Your task to perform on an android device: Open maps Image 0: 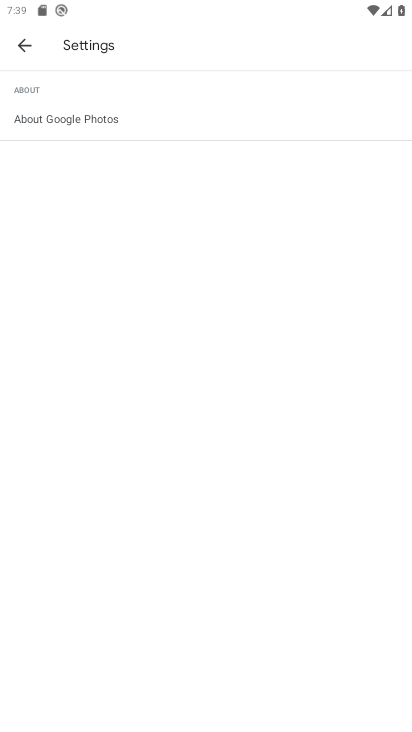
Step 0: press home button
Your task to perform on an android device: Open maps Image 1: 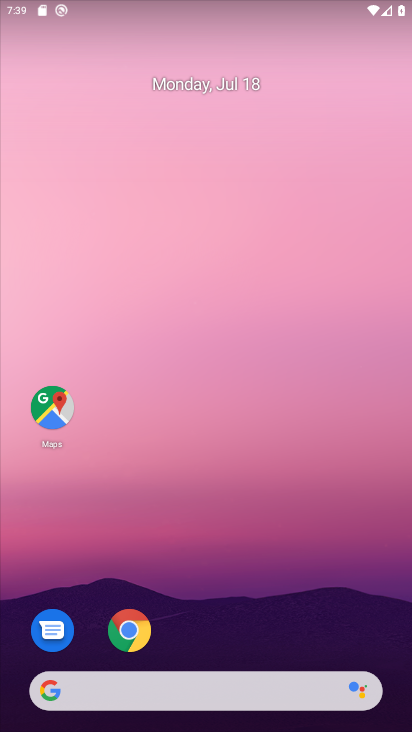
Step 1: click (57, 426)
Your task to perform on an android device: Open maps Image 2: 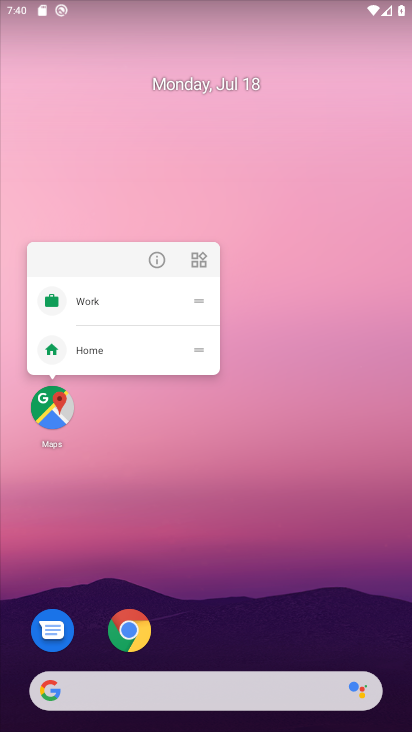
Step 2: click (46, 400)
Your task to perform on an android device: Open maps Image 3: 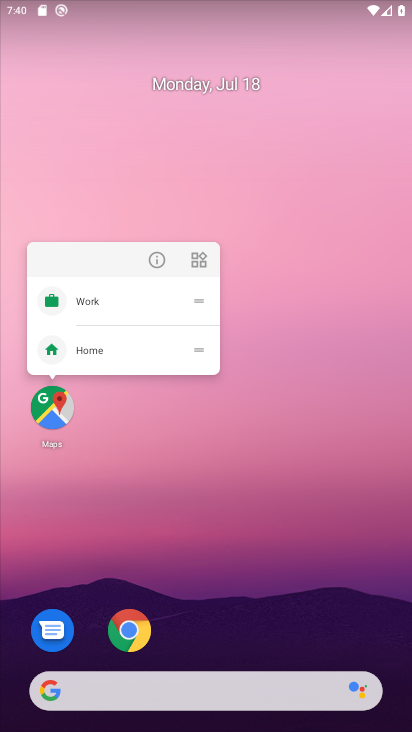
Step 3: click (46, 400)
Your task to perform on an android device: Open maps Image 4: 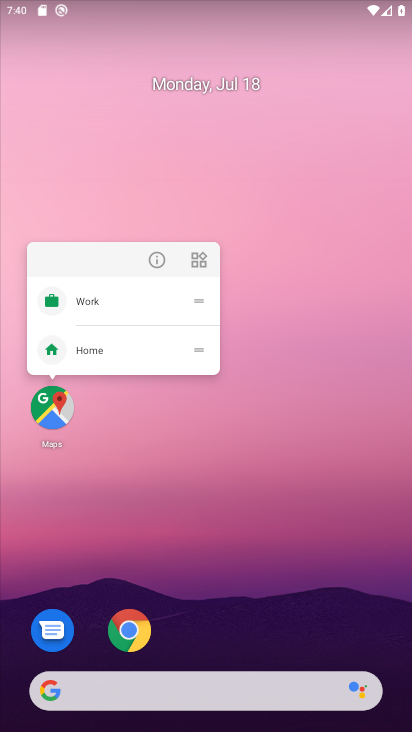
Step 4: click (63, 431)
Your task to perform on an android device: Open maps Image 5: 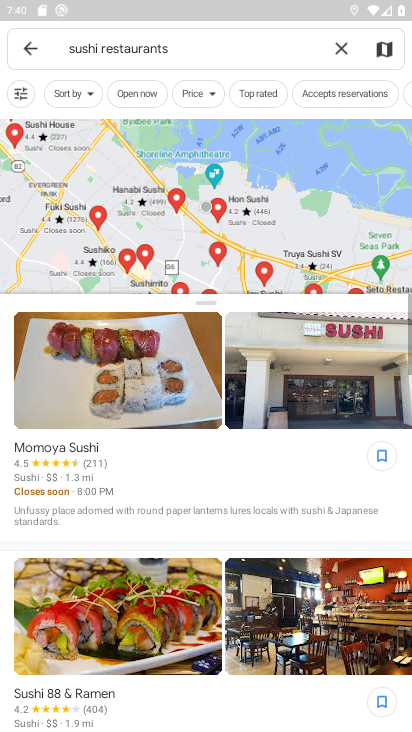
Step 5: task complete